Your task to perform on an android device: empty trash in the gmail app Image 0: 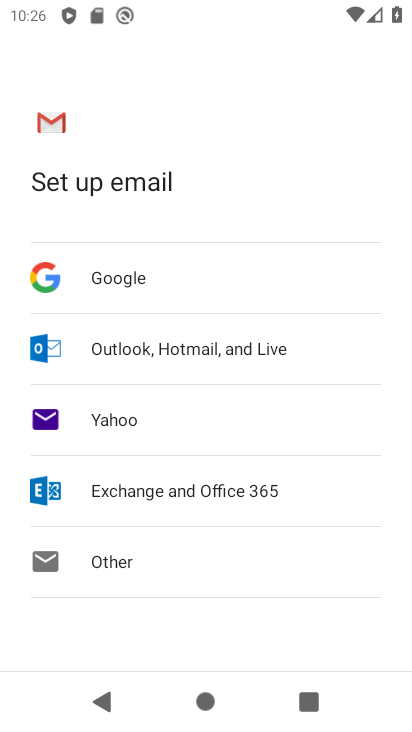
Step 0: press home button
Your task to perform on an android device: empty trash in the gmail app Image 1: 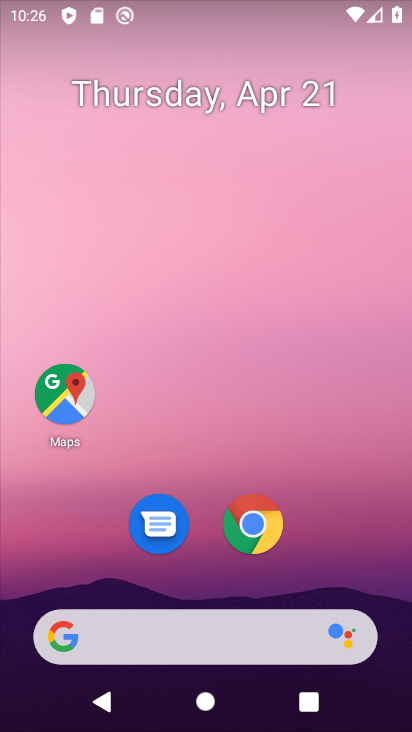
Step 1: drag from (335, 529) to (351, 85)
Your task to perform on an android device: empty trash in the gmail app Image 2: 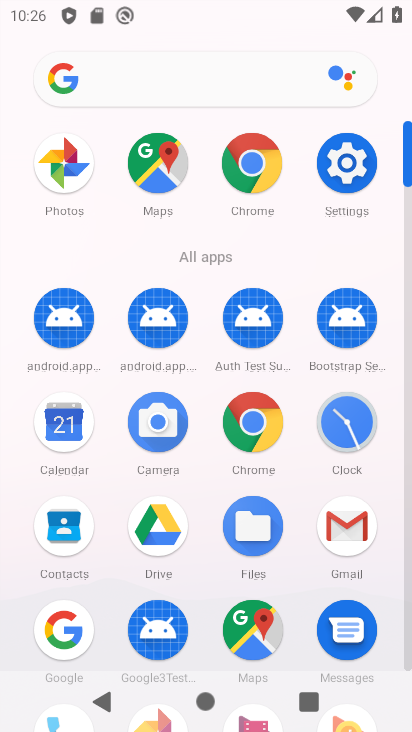
Step 2: click (343, 514)
Your task to perform on an android device: empty trash in the gmail app Image 3: 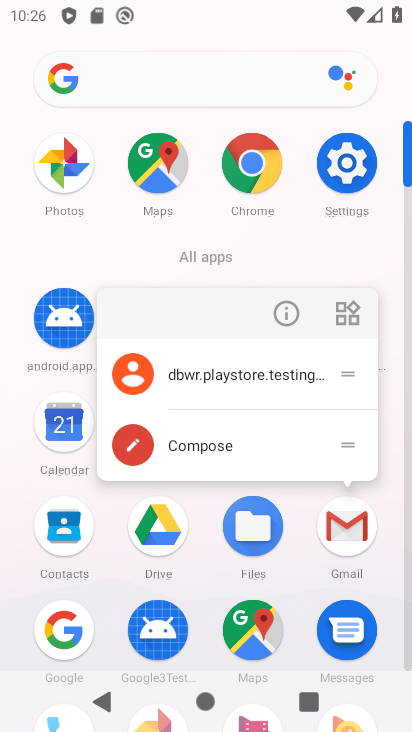
Step 3: click (343, 514)
Your task to perform on an android device: empty trash in the gmail app Image 4: 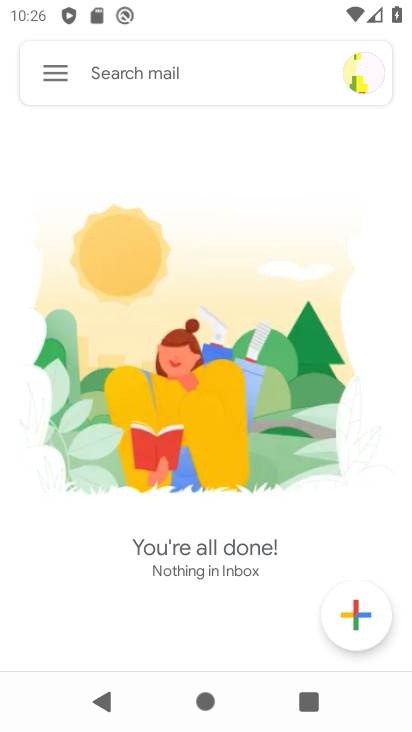
Step 4: click (54, 69)
Your task to perform on an android device: empty trash in the gmail app Image 5: 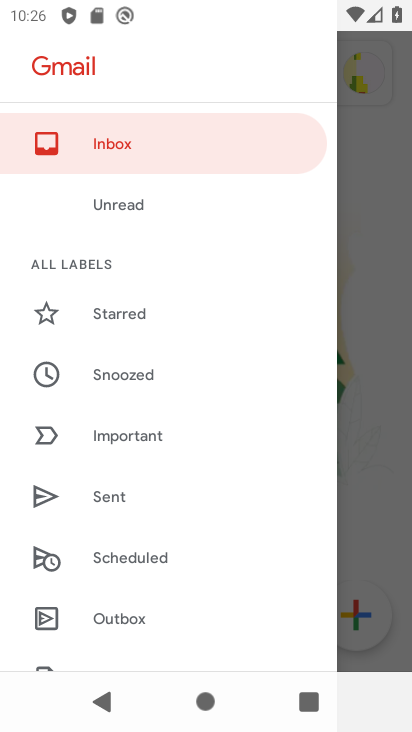
Step 5: drag from (215, 589) to (246, 154)
Your task to perform on an android device: empty trash in the gmail app Image 6: 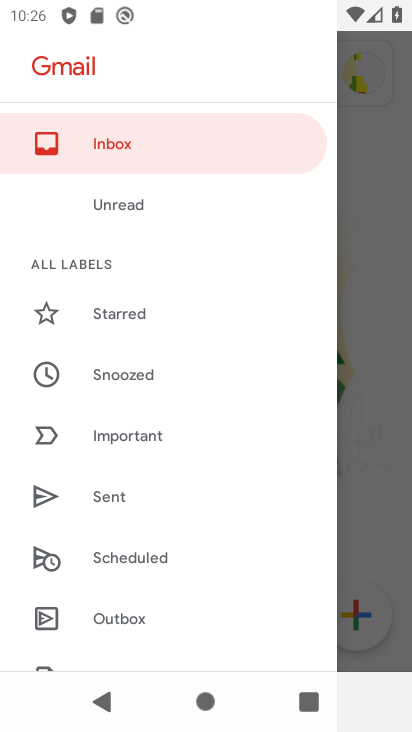
Step 6: drag from (156, 580) to (212, 116)
Your task to perform on an android device: empty trash in the gmail app Image 7: 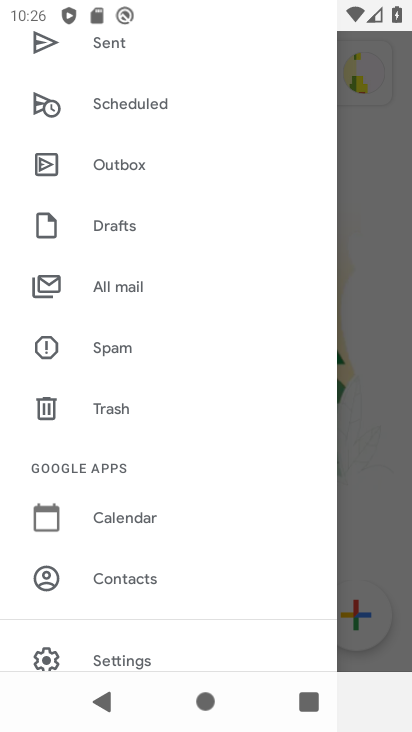
Step 7: click (164, 405)
Your task to perform on an android device: empty trash in the gmail app Image 8: 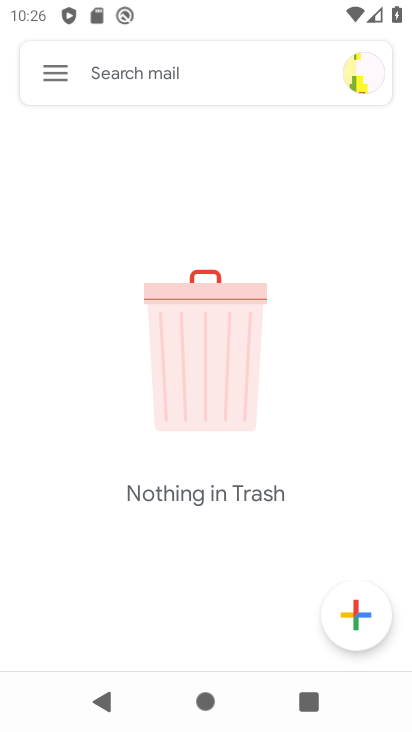
Step 8: task complete